Your task to perform on an android device: Go to Reddit.com Image 0: 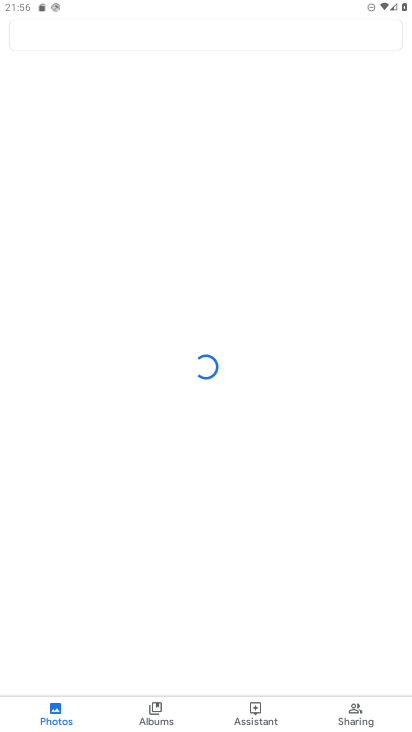
Step 0: press home button
Your task to perform on an android device: Go to Reddit.com Image 1: 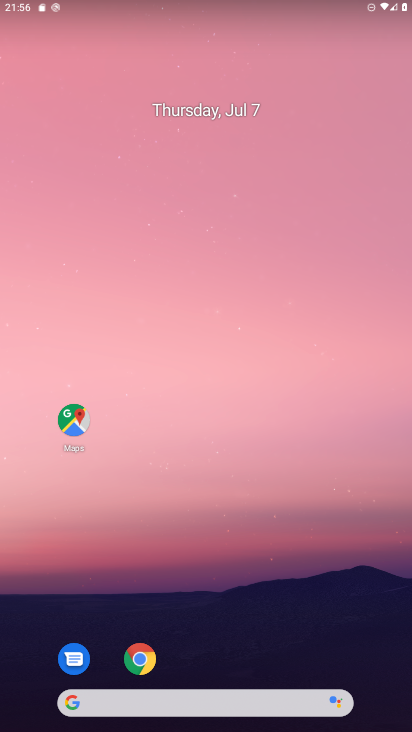
Step 1: drag from (233, 604) to (175, 238)
Your task to perform on an android device: Go to Reddit.com Image 2: 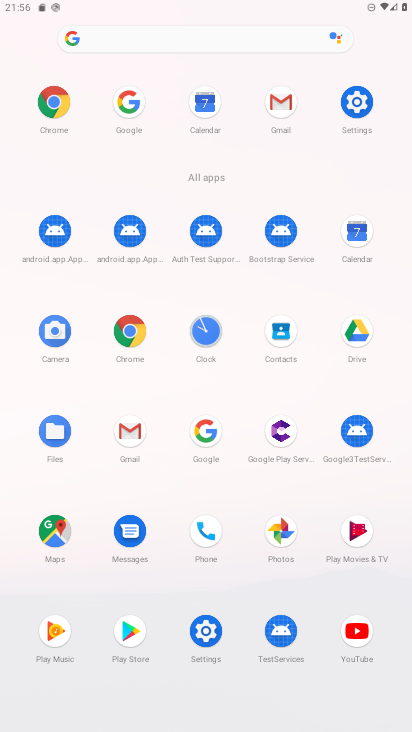
Step 2: click (128, 99)
Your task to perform on an android device: Go to Reddit.com Image 3: 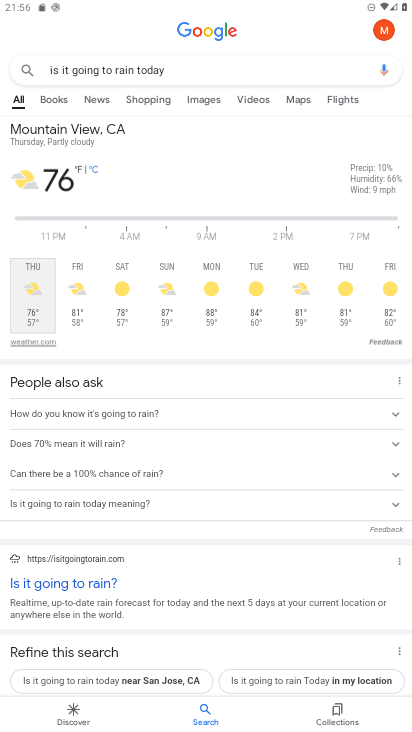
Step 3: click (277, 64)
Your task to perform on an android device: Go to Reddit.com Image 4: 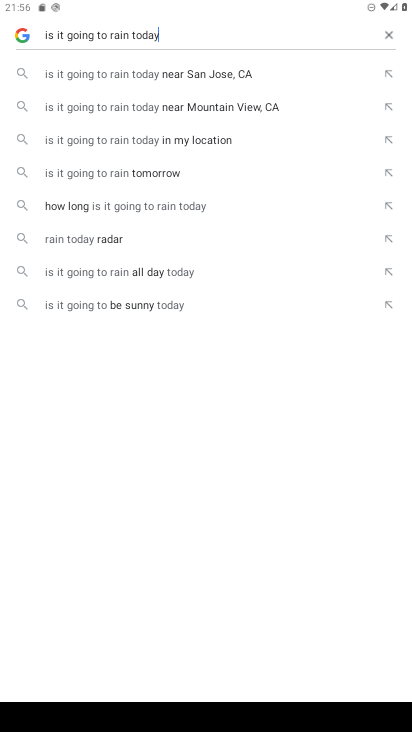
Step 4: click (389, 33)
Your task to perform on an android device: Go to Reddit.com Image 5: 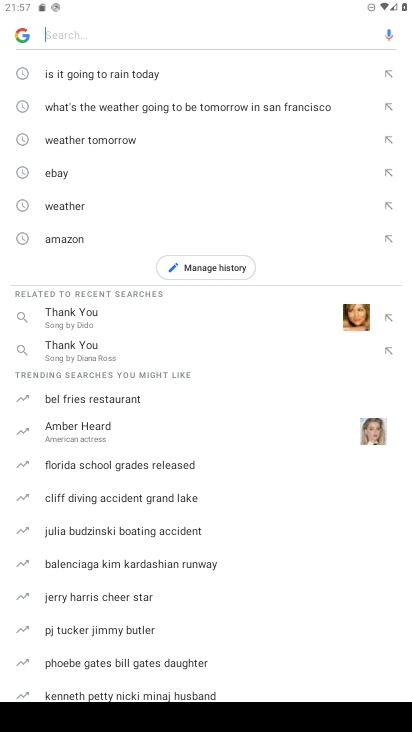
Step 5: type "reddit.com"
Your task to perform on an android device: Go to Reddit.com Image 6: 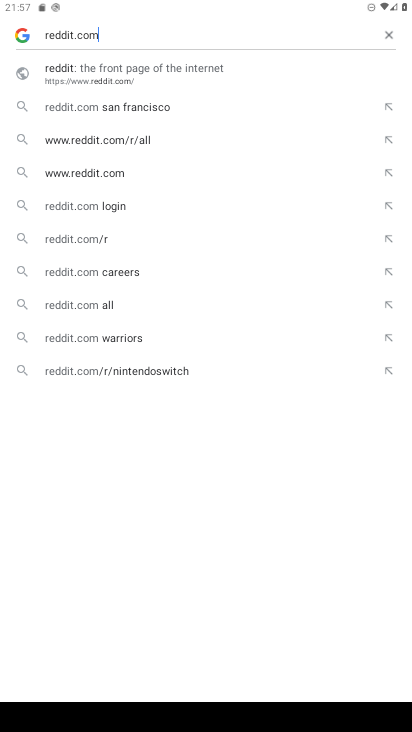
Step 6: click (82, 55)
Your task to perform on an android device: Go to Reddit.com Image 7: 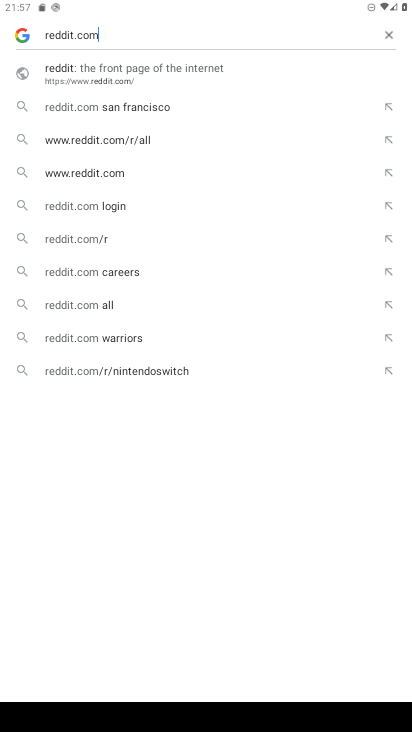
Step 7: click (116, 67)
Your task to perform on an android device: Go to Reddit.com Image 8: 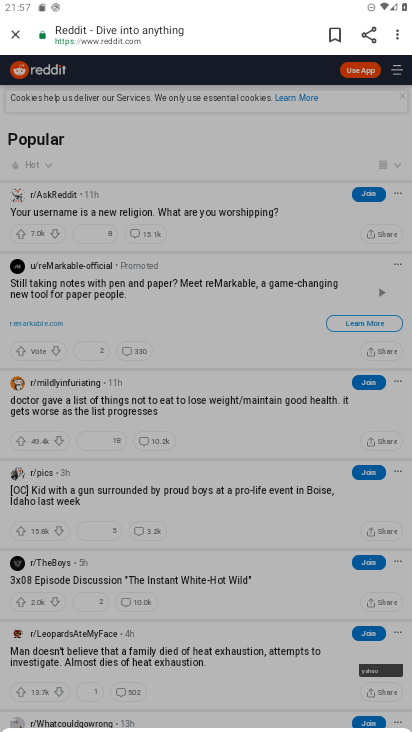
Step 8: task complete